Your task to perform on an android device: visit the assistant section in the google photos Image 0: 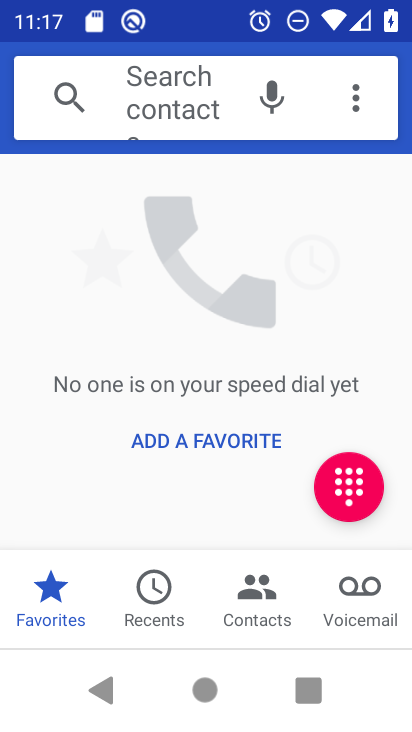
Step 0: press home button
Your task to perform on an android device: visit the assistant section in the google photos Image 1: 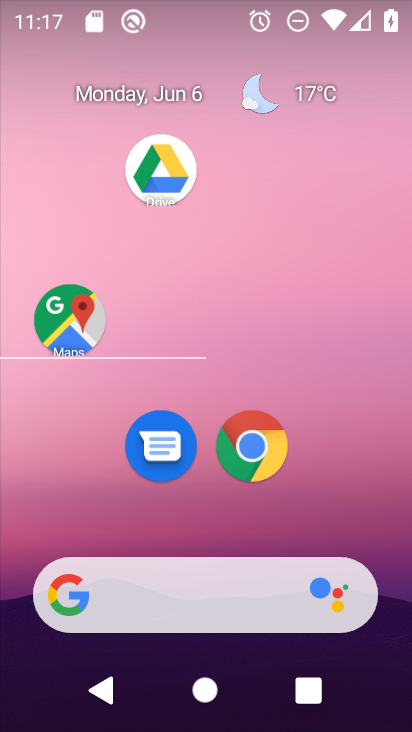
Step 1: drag from (193, 418) to (222, 46)
Your task to perform on an android device: visit the assistant section in the google photos Image 2: 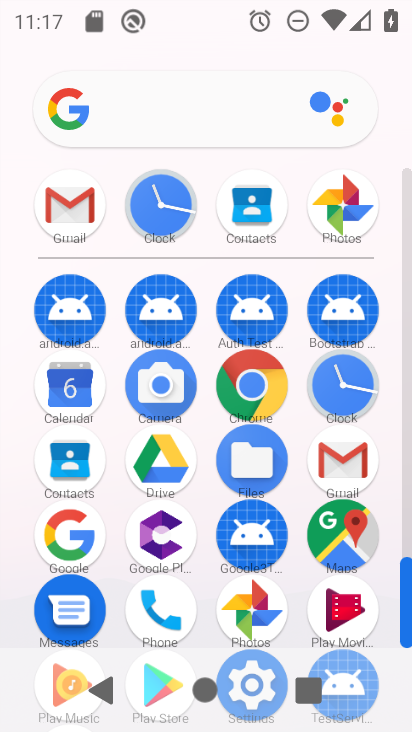
Step 2: click (348, 225)
Your task to perform on an android device: visit the assistant section in the google photos Image 3: 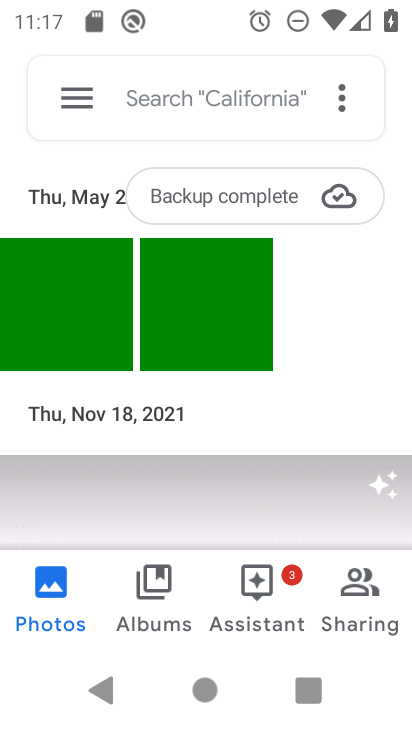
Step 3: click (348, 225)
Your task to perform on an android device: visit the assistant section in the google photos Image 4: 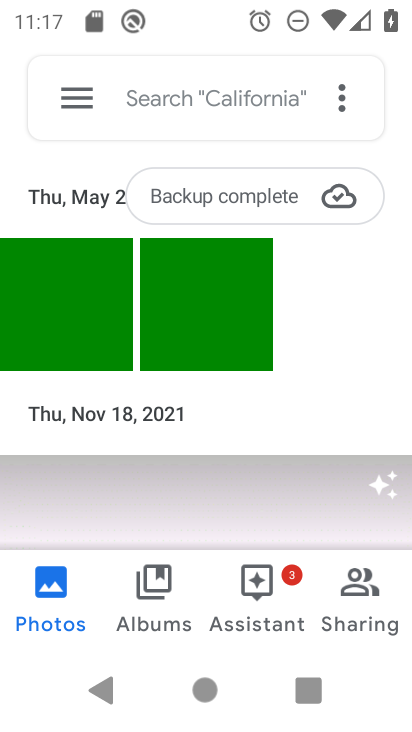
Step 4: click (264, 575)
Your task to perform on an android device: visit the assistant section in the google photos Image 5: 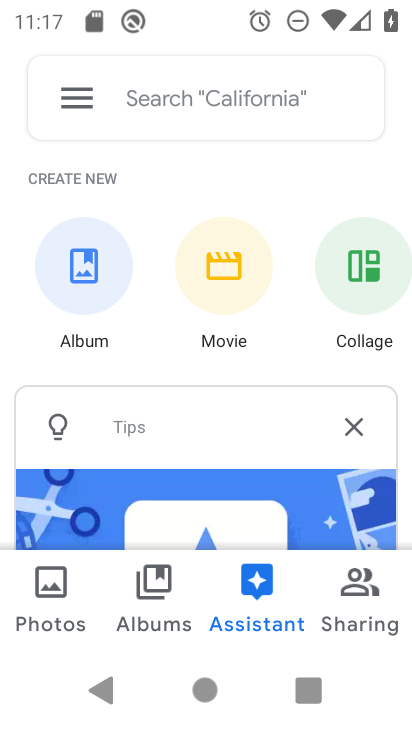
Step 5: task complete